Your task to perform on an android device: find photos in the google photos app Image 0: 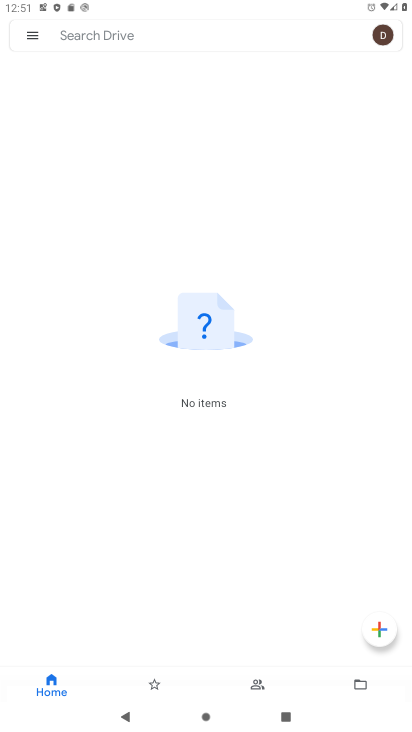
Step 0: press home button
Your task to perform on an android device: find photos in the google photos app Image 1: 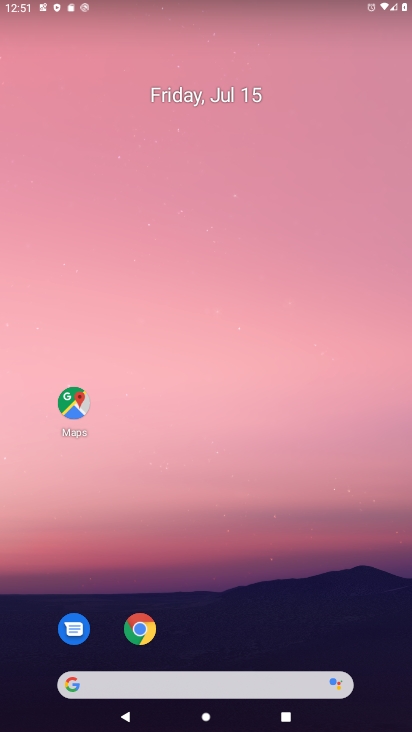
Step 1: drag from (273, 622) to (278, 82)
Your task to perform on an android device: find photos in the google photos app Image 2: 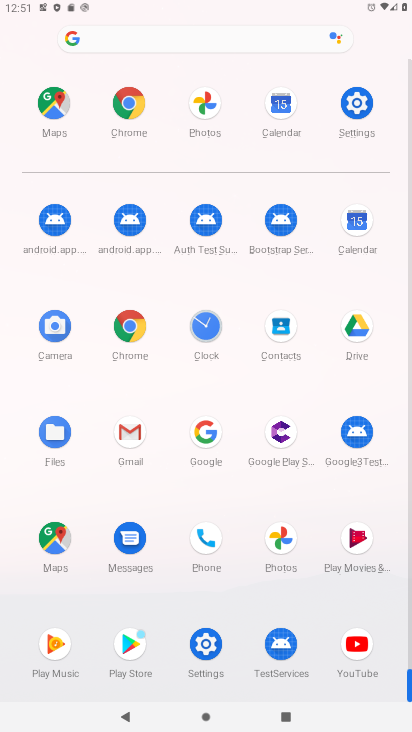
Step 2: click (203, 107)
Your task to perform on an android device: find photos in the google photos app Image 3: 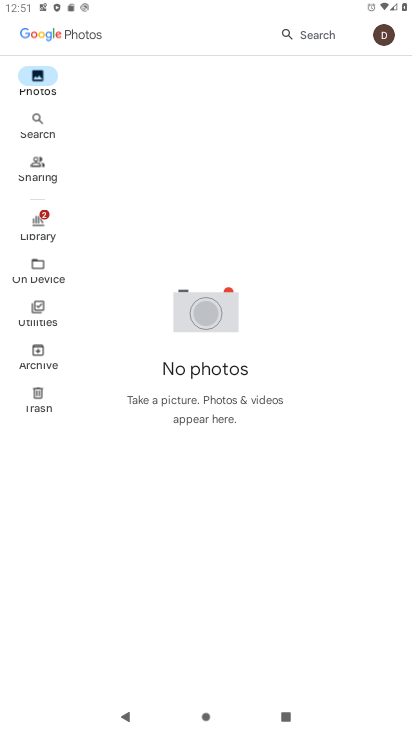
Step 3: click (31, 87)
Your task to perform on an android device: find photos in the google photos app Image 4: 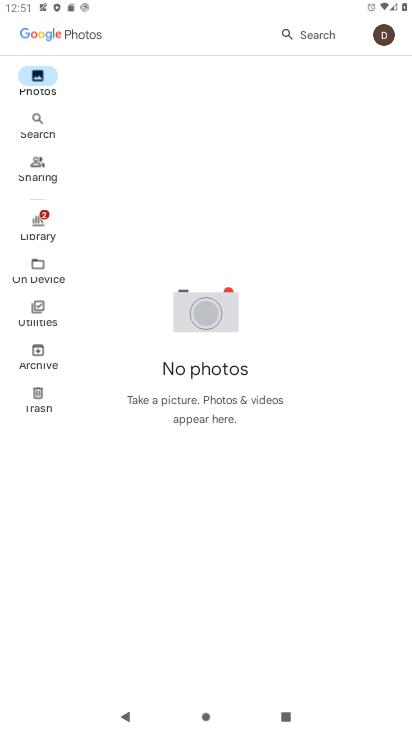
Step 4: task complete